Your task to perform on an android device: change the clock display to show seconds Image 0: 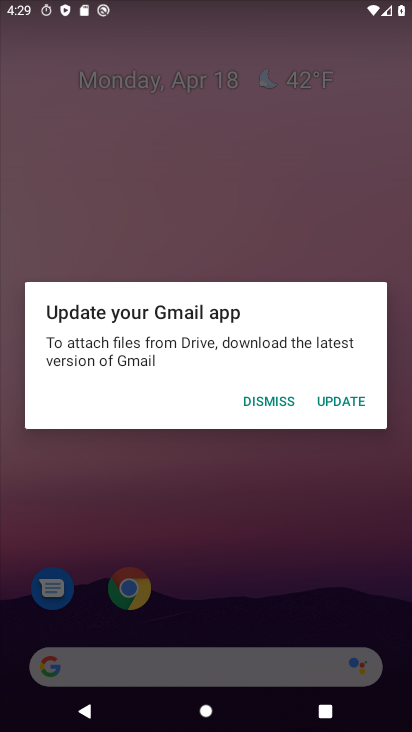
Step 0: press home button
Your task to perform on an android device: change the clock display to show seconds Image 1: 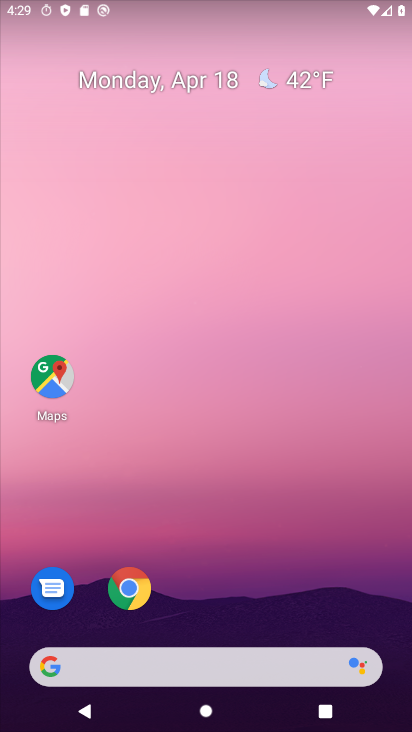
Step 1: drag from (310, 564) to (199, 4)
Your task to perform on an android device: change the clock display to show seconds Image 2: 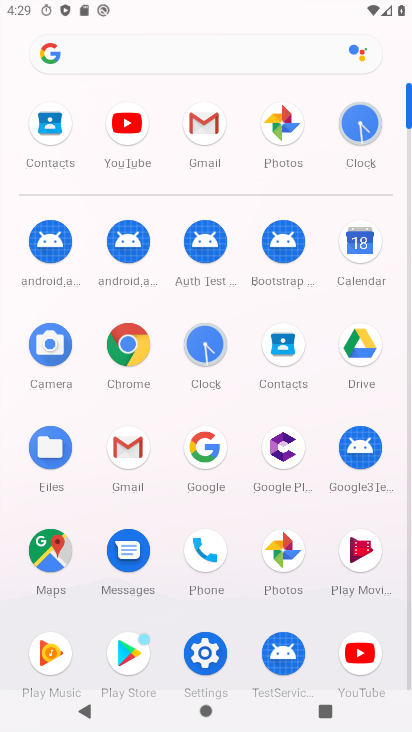
Step 2: click (355, 113)
Your task to perform on an android device: change the clock display to show seconds Image 3: 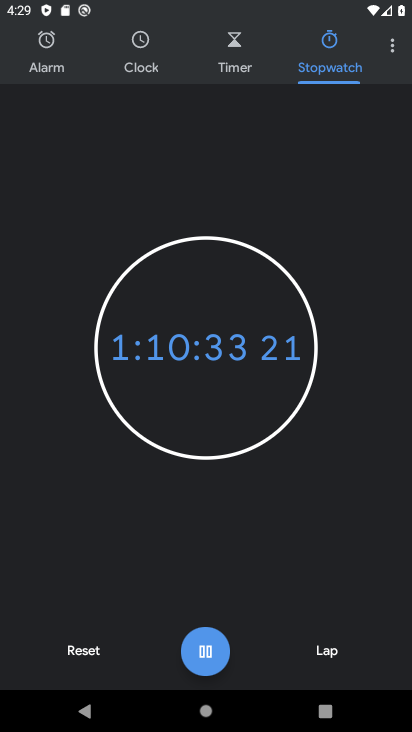
Step 3: click (385, 43)
Your task to perform on an android device: change the clock display to show seconds Image 4: 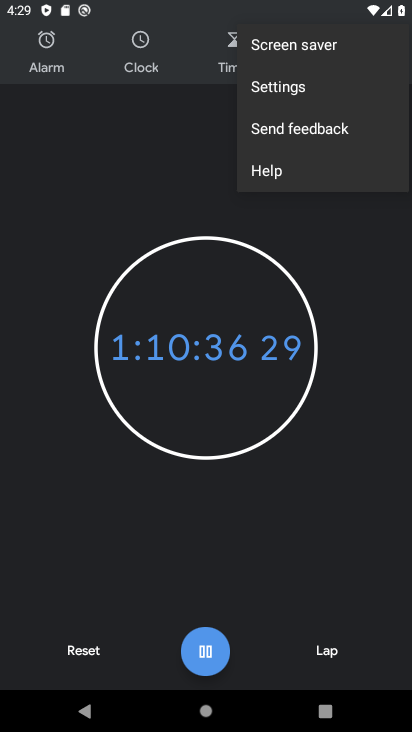
Step 4: click (308, 96)
Your task to perform on an android device: change the clock display to show seconds Image 5: 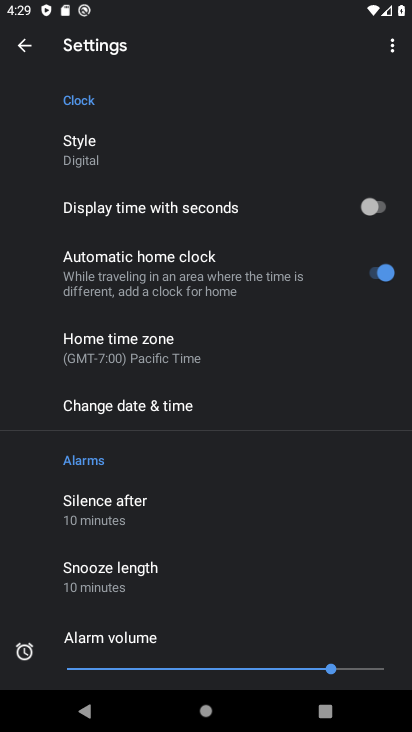
Step 5: click (388, 215)
Your task to perform on an android device: change the clock display to show seconds Image 6: 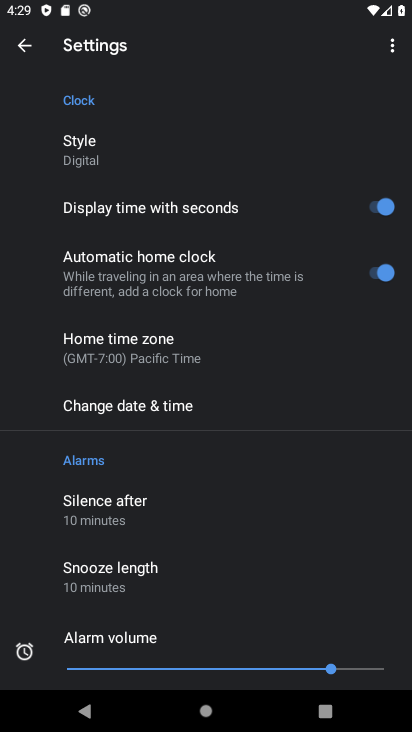
Step 6: task complete